Your task to perform on an android device: turn on showing notifications on the lock screen Image 0: 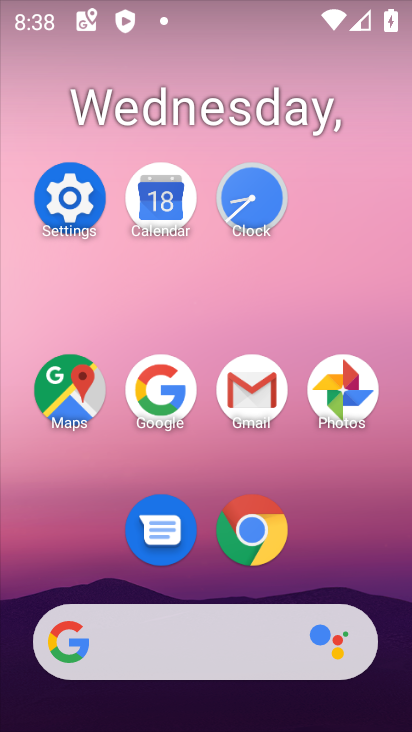
Step 0: click (83, 202)
Your task to perform on an android device: turn on showing notifications on the lock screen Image 1: 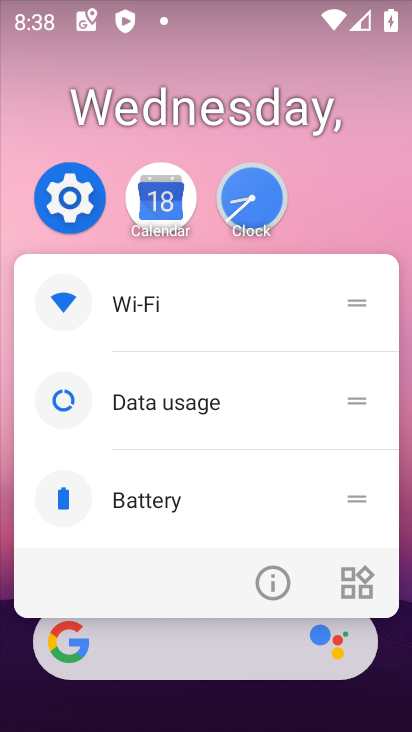
Step 1: click (80, 226)
Your task to perform on an android device: turn on showing notifications on the lock screen Image 2: 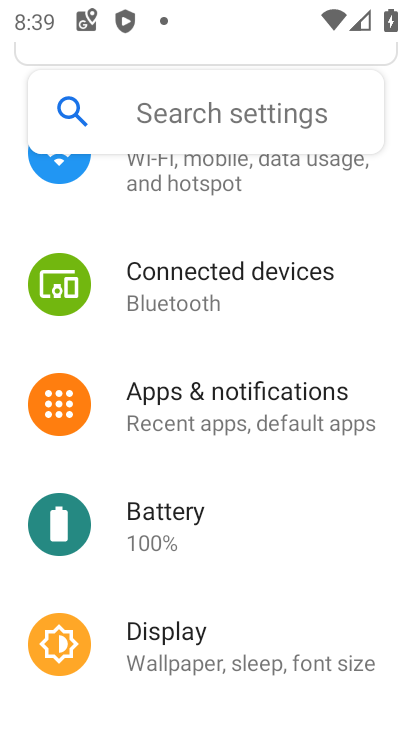
Step 2: drag from (293, 335) to (201, 572)
Your task to perform on an android device: turn on showing notifications on the lock screen Image 3: 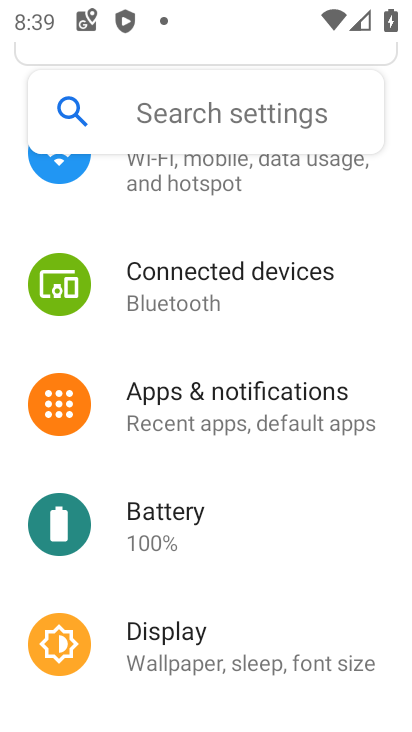
Step 3: drag from (338, 231) to (287, 379)
Your task to perform on an android device: turn on showing notifications on the lock screen Image 4: 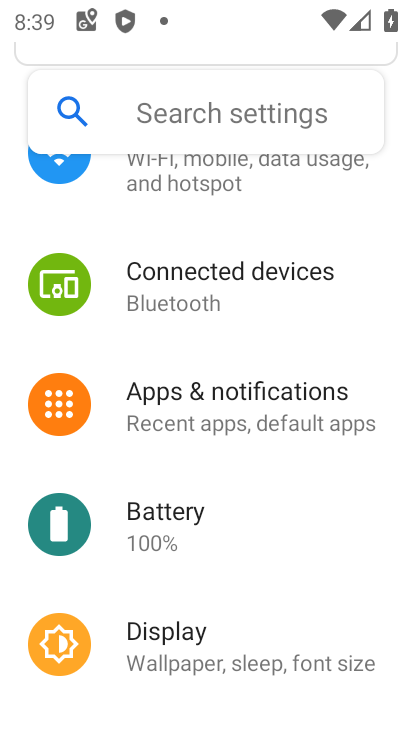
Step 4: click (251, 425)
Your task to perform on an android device: turn on showing notifications on the lock screen Image 5: 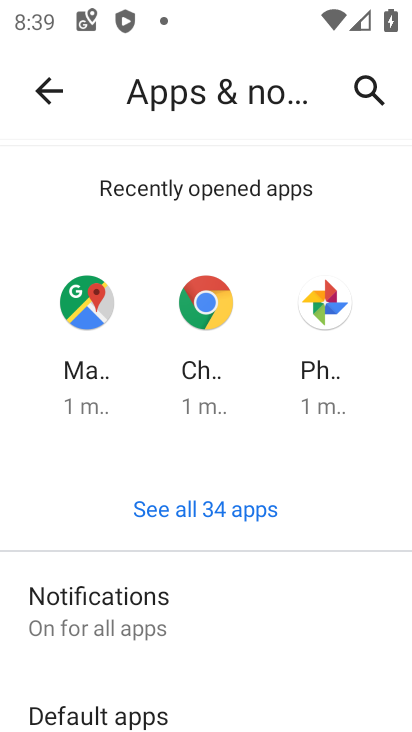
Step 5: click (209, 619)
Your task to perform on an android device: turn on showing notifications on the lock screen Image 6: 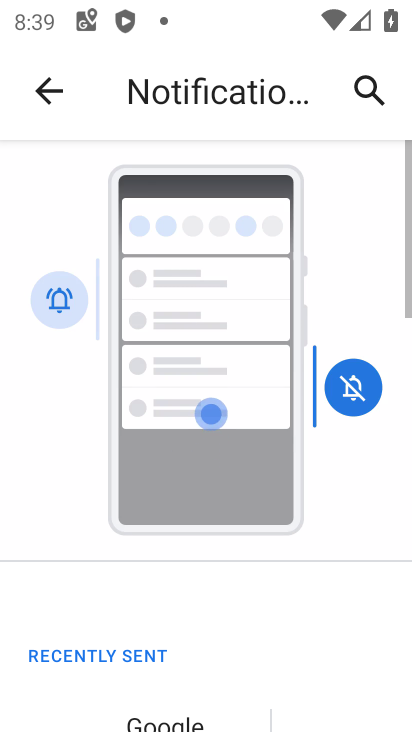
Step 6: drag from (209, 619) to (406, 115)
Your task to perform on an android device: turn on showing notifications on the lock screen Image 7: 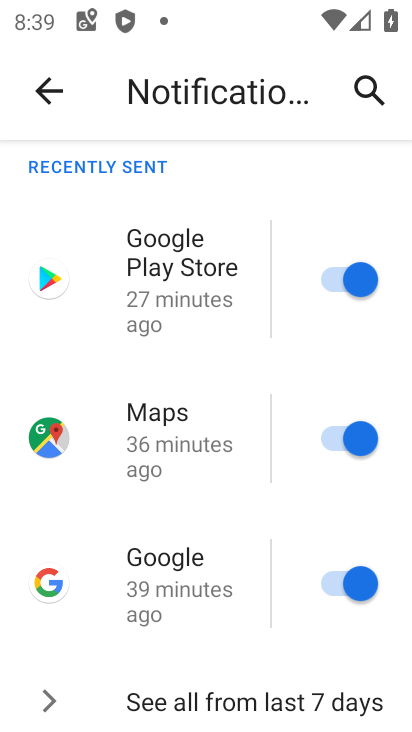
Step 7: drag from (124, 600) to (283, 142)
Your task to perform on an android device: turn on showing notifications on the lock screen Image 8: 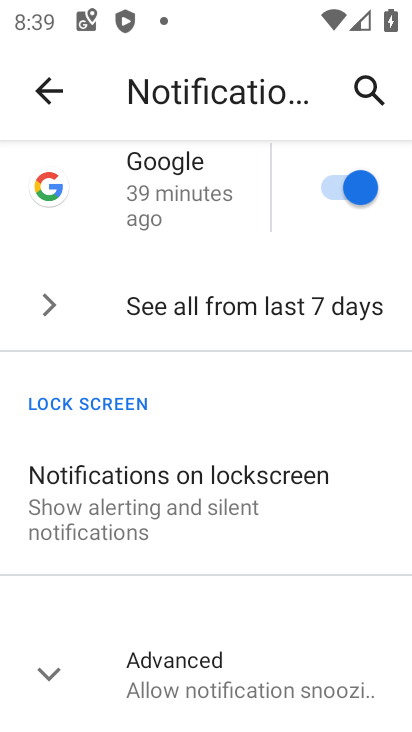
Step 8: click (143, 519)
Your task to perform on an android device: turn on showing notifications on the lock screen Image 9: 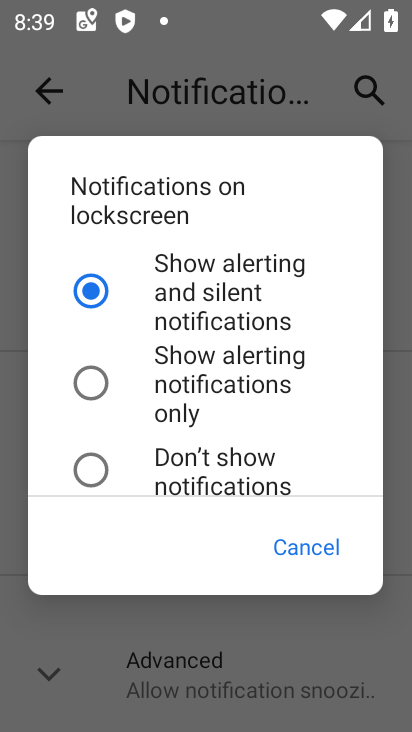
Step 9: task complete